Your task to perform on an android device: turn smart compose on in the gmail app Image 0: 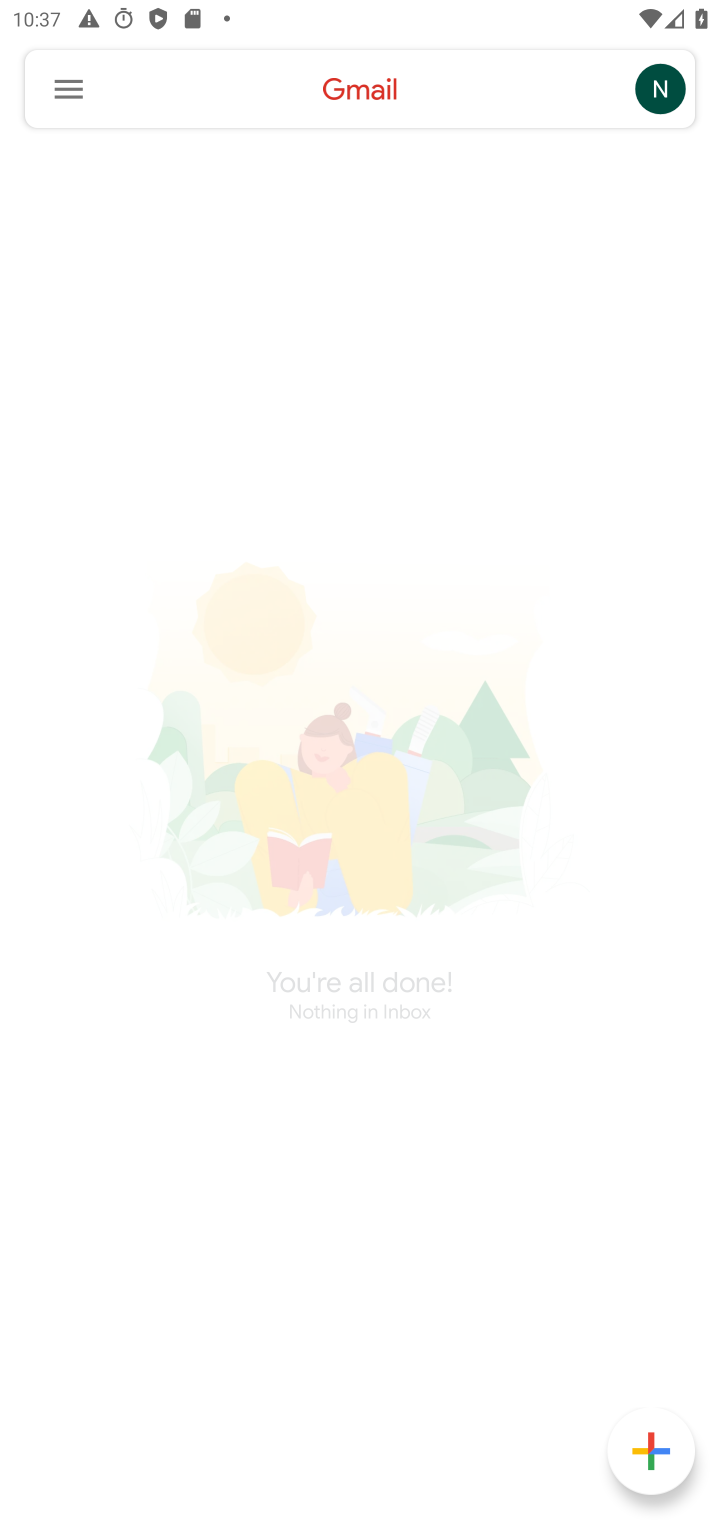
Step 0: press home button
Your task to perform on an android device: turn smart compose on in the gmail app Image 1: 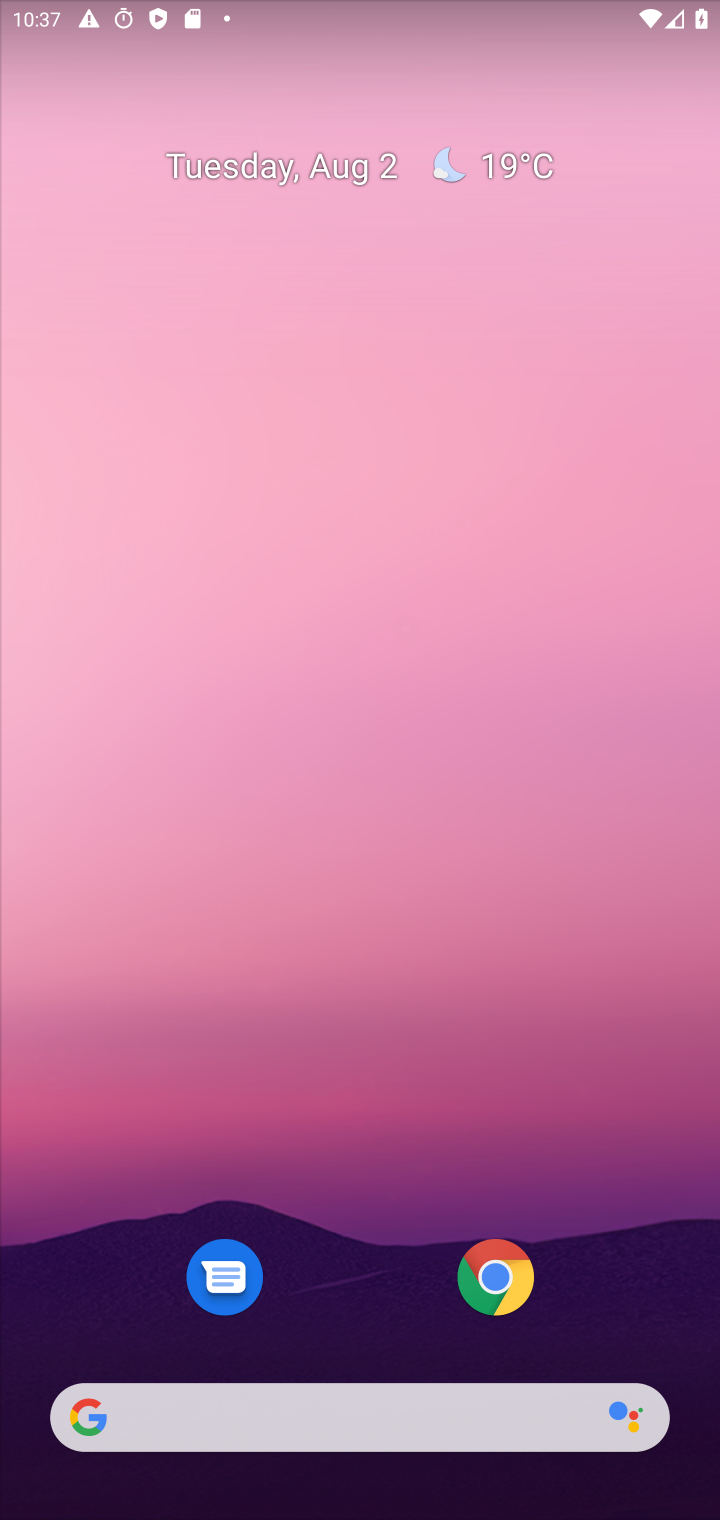
Step 1: press home button
Your task to perform on an android device: turn smart compose on in the gmail app Image 2: 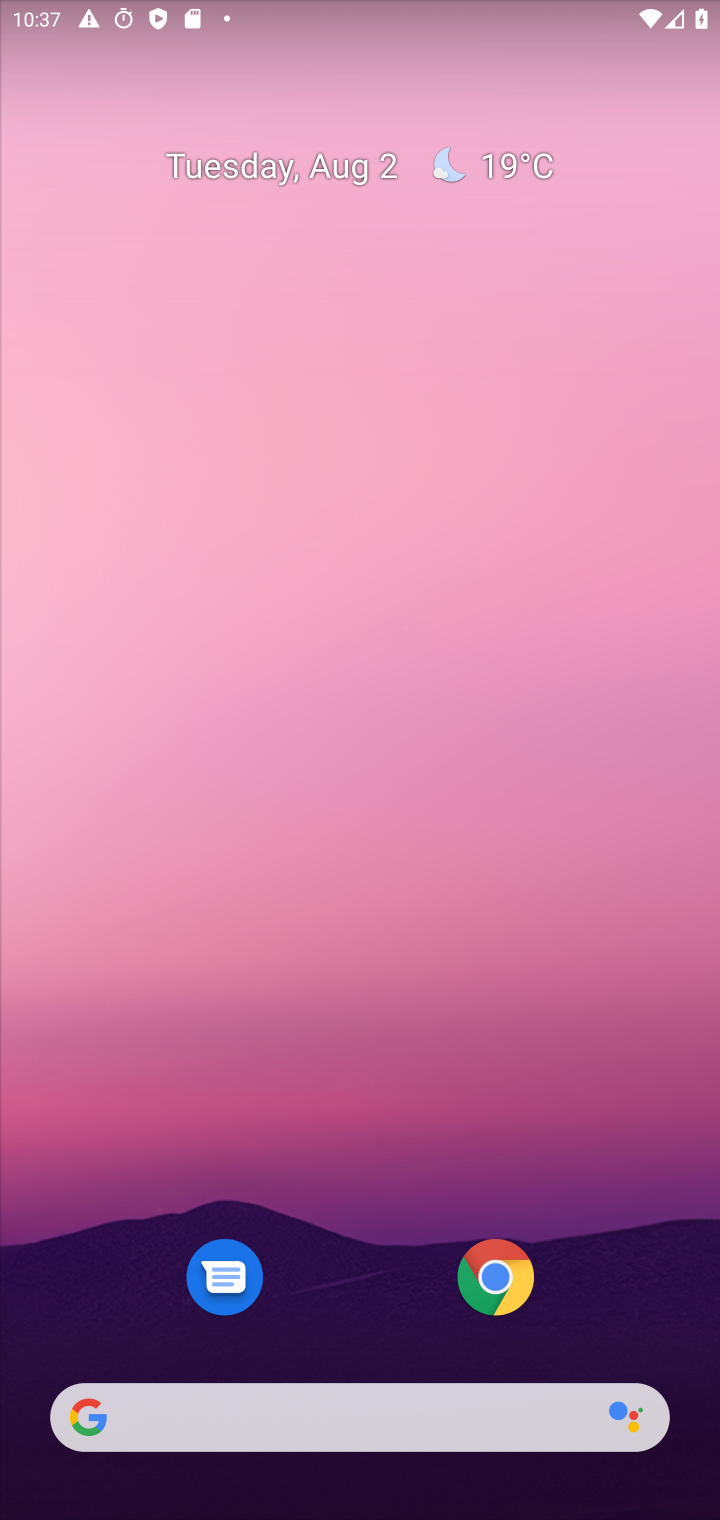
Step 2: drag from (376, 498) to (367, 141)
Your task to perform on an android device: turn smart compose on in the gmail app Image 3: 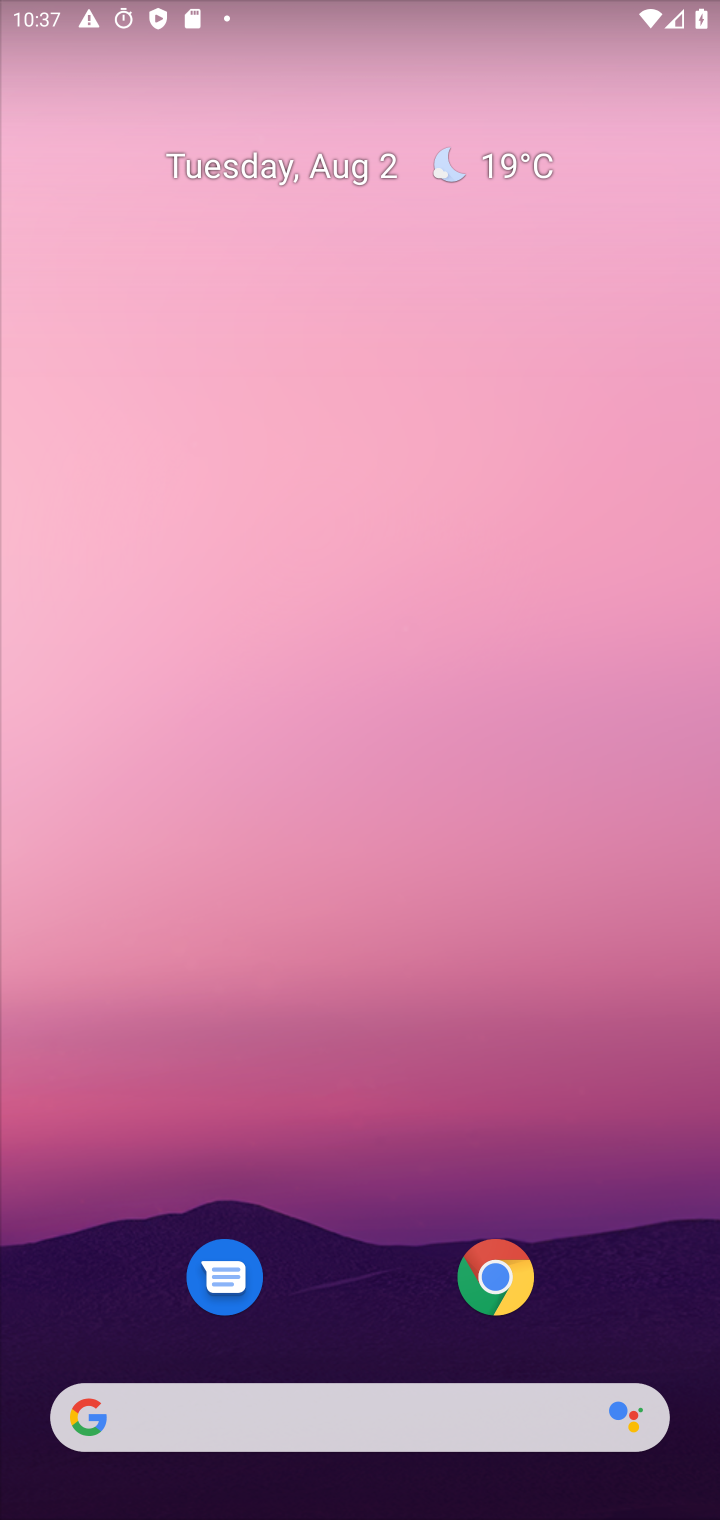
Step 3: drag from (363, 1133) to (257, 76)
Your task to perform on an android device: turn smart compose on in the gmail app Image 4: 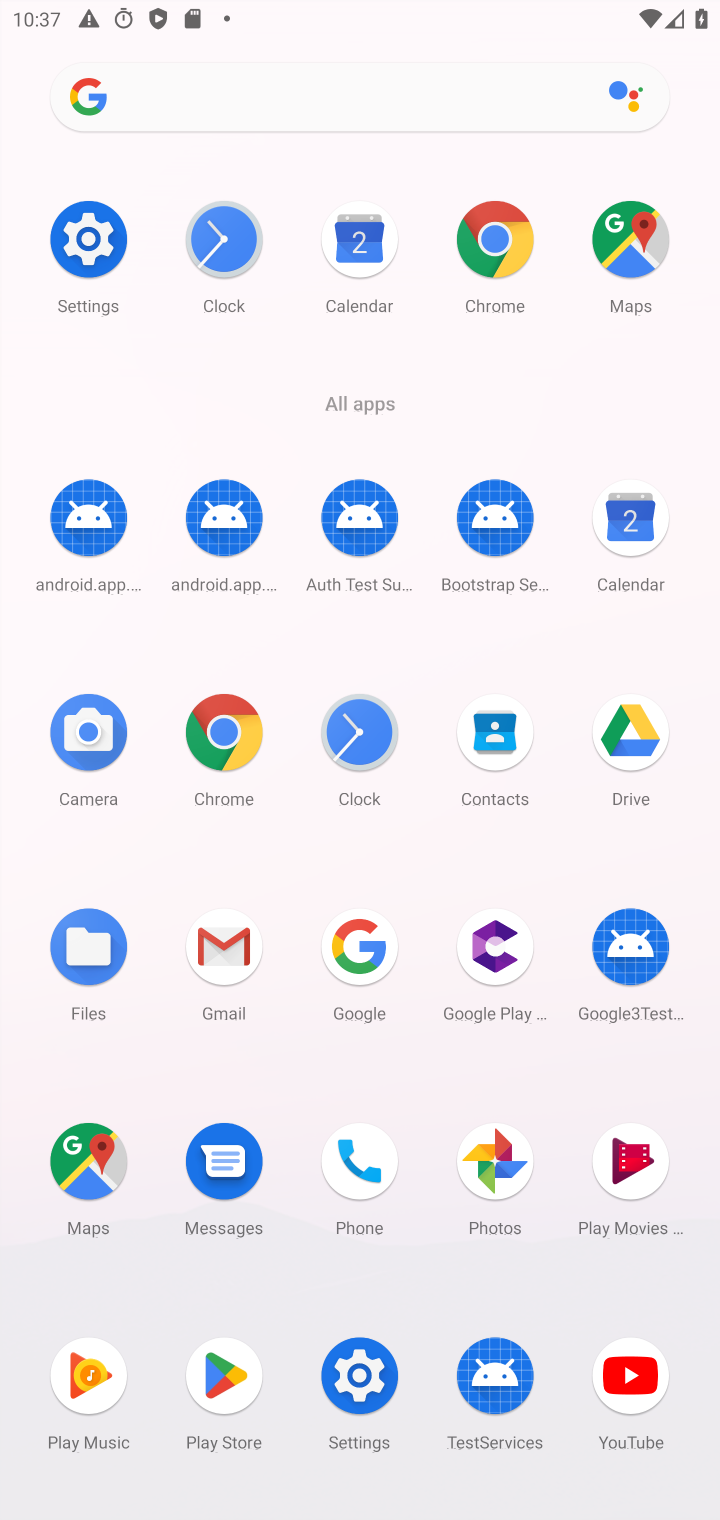
Step 4: click (229, 943)
Your task to perform on an android device: turn smart compose on in the gmail app Image 5: 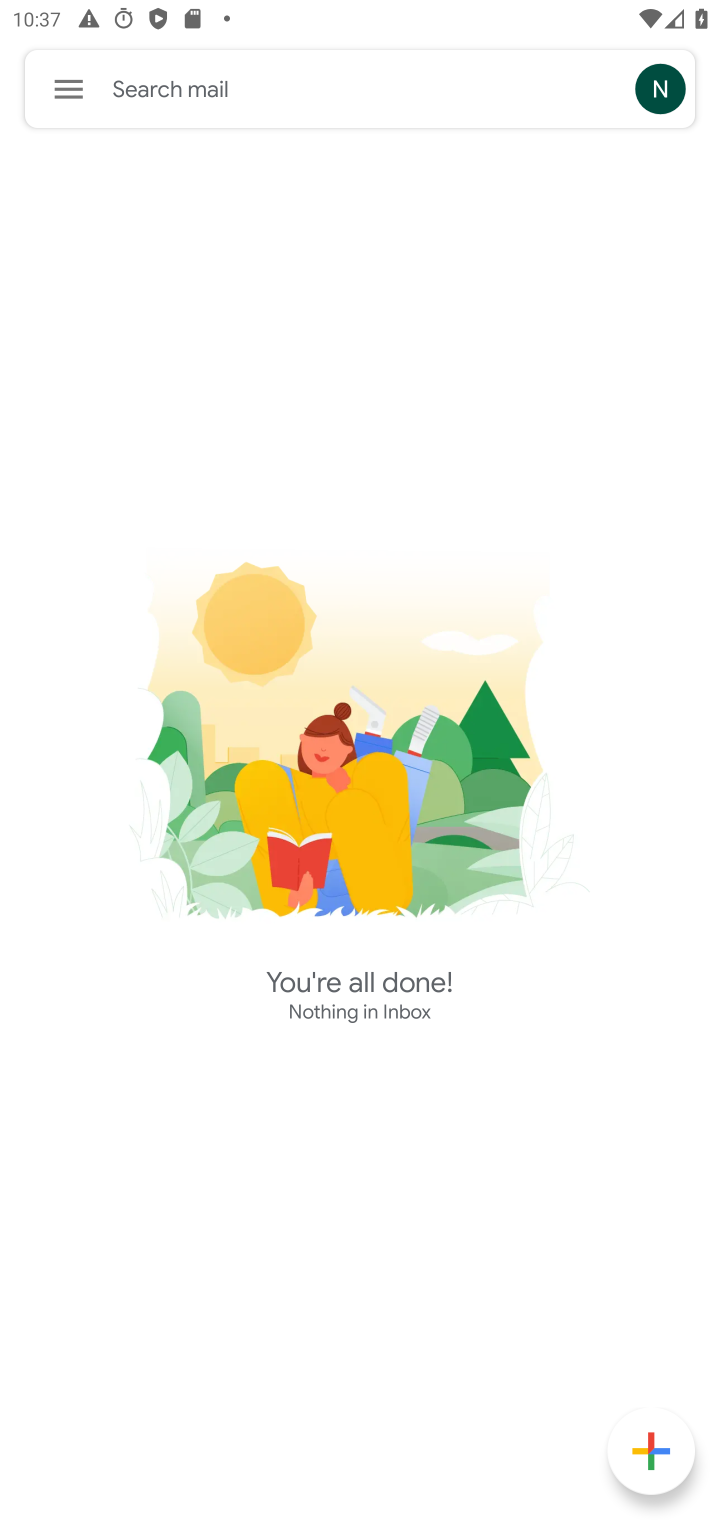
Step 5: click (59, 85)
Your task to perform on an android device: turn smart compose on in the gmail app Image 6: 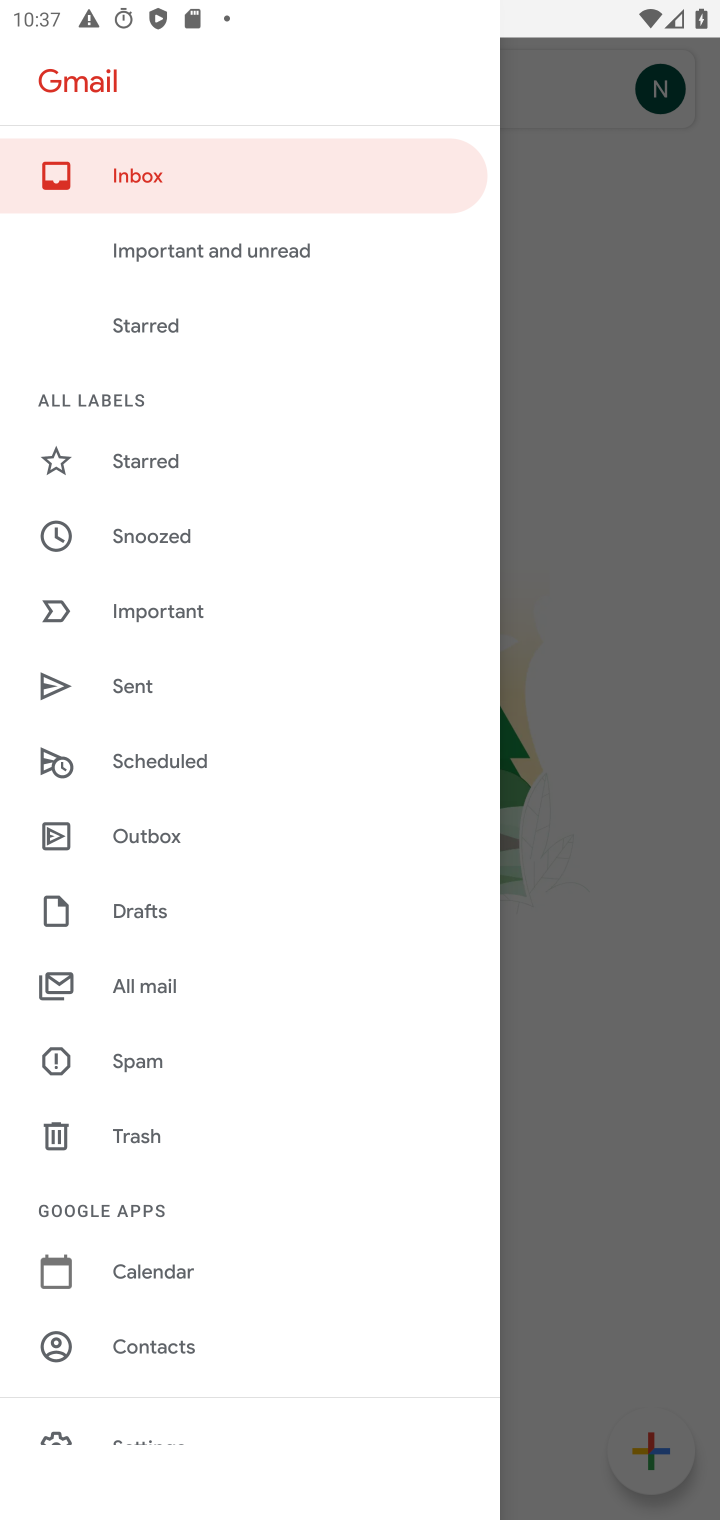
Step 6: drag from (190, 1209) to (139, 627)
Your task to perform on an android device: turn smart compose on in the gmail app Image 7: 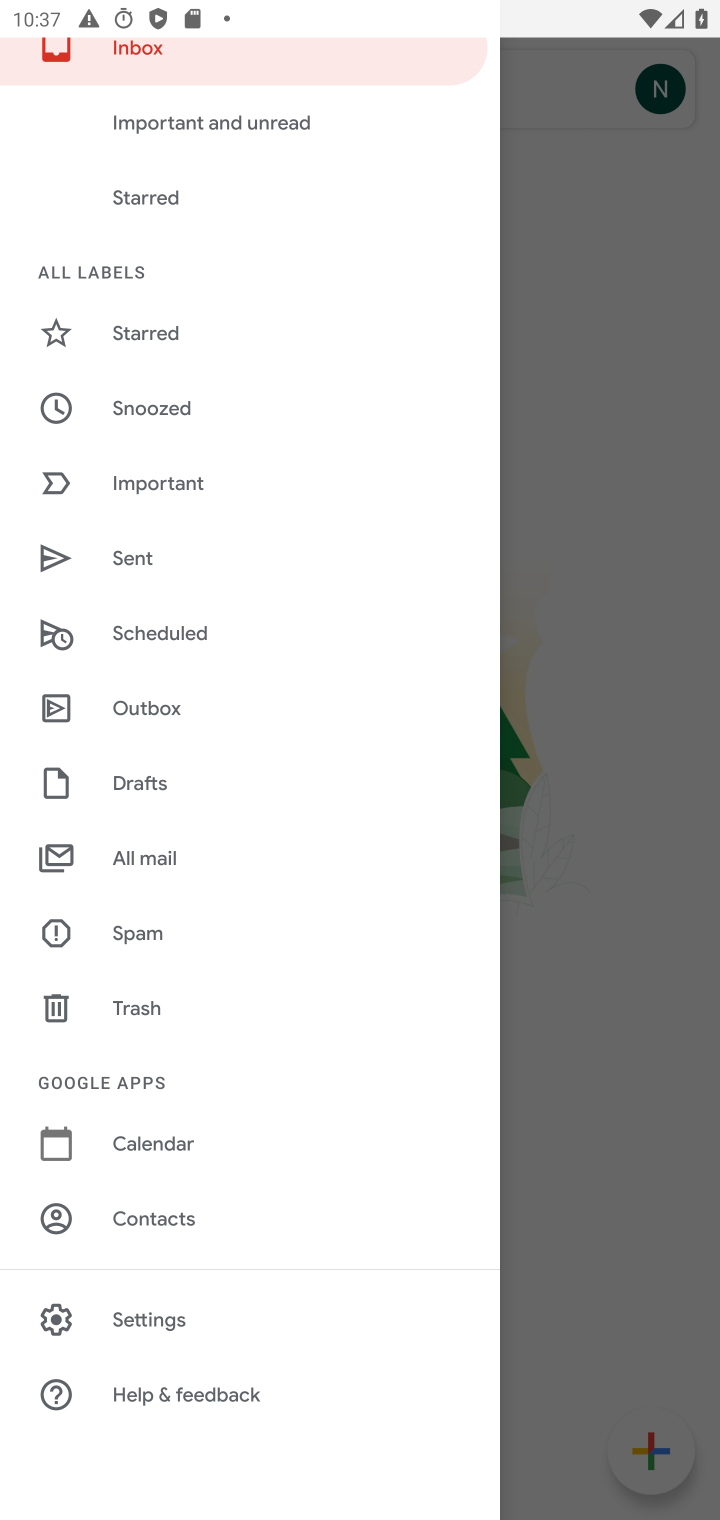
Step 7: click (172, 1320)
Your task to perform on an android device: turn smart compose on in the gmail app Image 8: 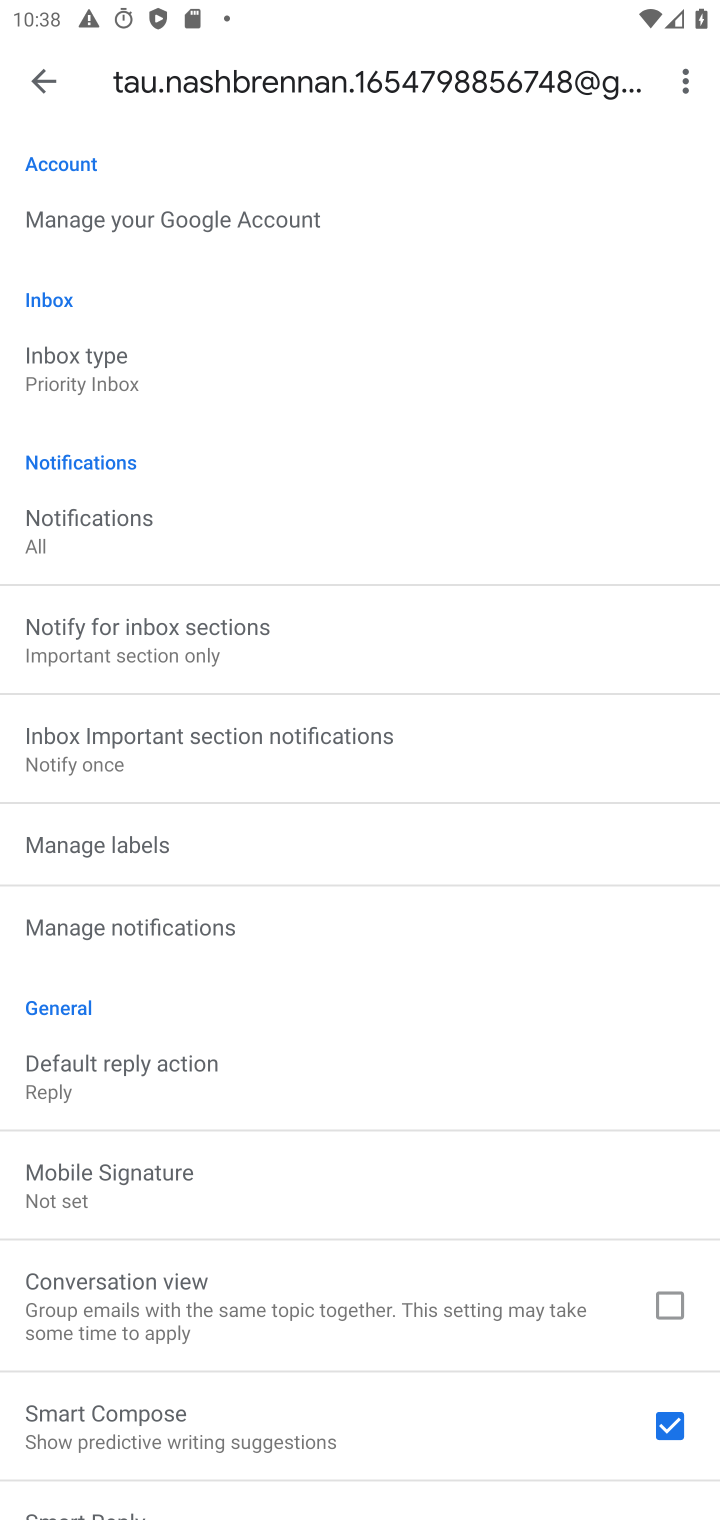
Step 8: task complete